Your task to perform on an android device: add a contact in the contacts app Image 0: 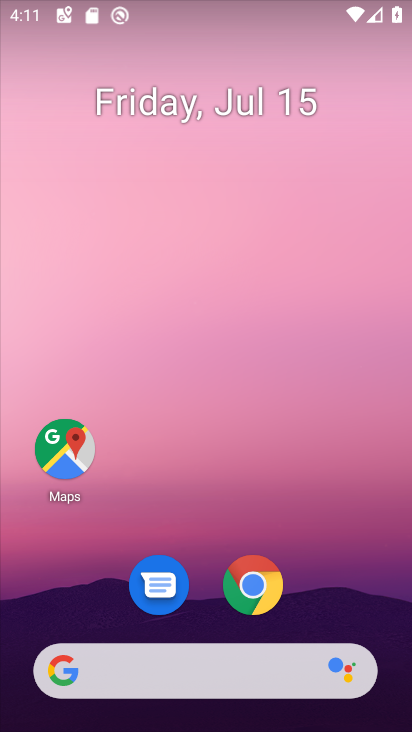
Step 0: drag from (319, 590) to (306, 28)
Your task to perform on an android device: add a contact in the contacts app Image 1: 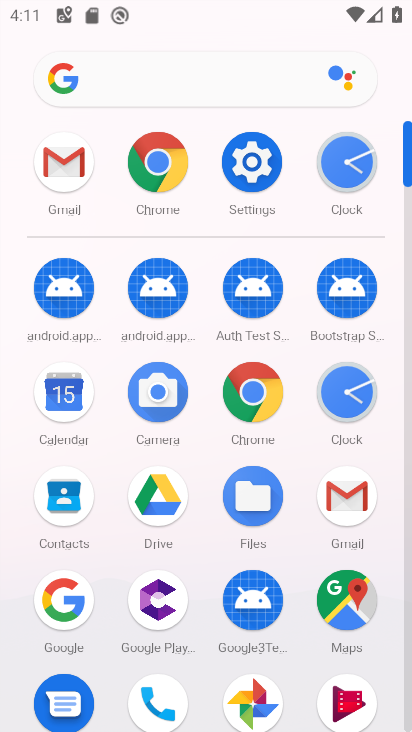
Step 1: click (71, 492)
Your task to perform on an android device: add a contact in the contacts app Image 2: 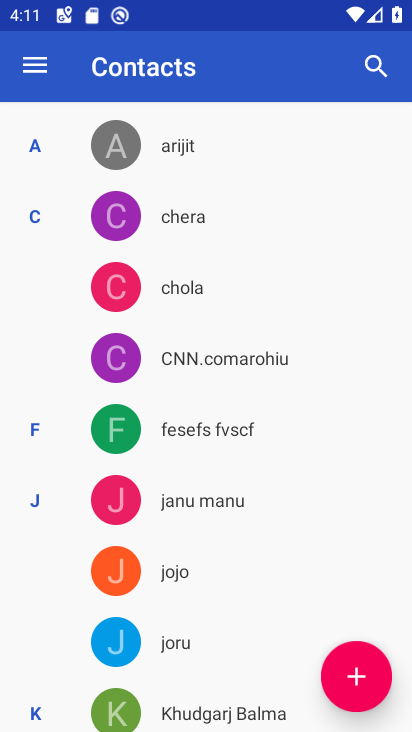
Step 2: click (358, 674)
Your task to perform on an android device: add a contact in the contacts app Image 3: 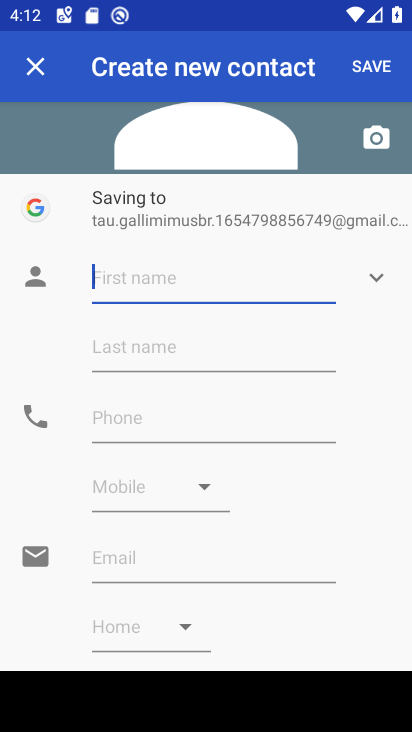
Step 3: type "Prayagraj"
Your task to perform on an android device: add a contact in the contacts app Image 4: 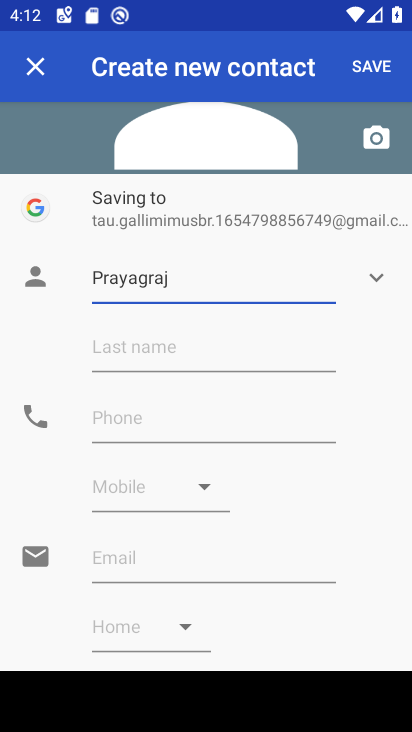
Step 4: click (251, 429)
Your task to perform on an android device: add a contact in the contacts app Image 5: 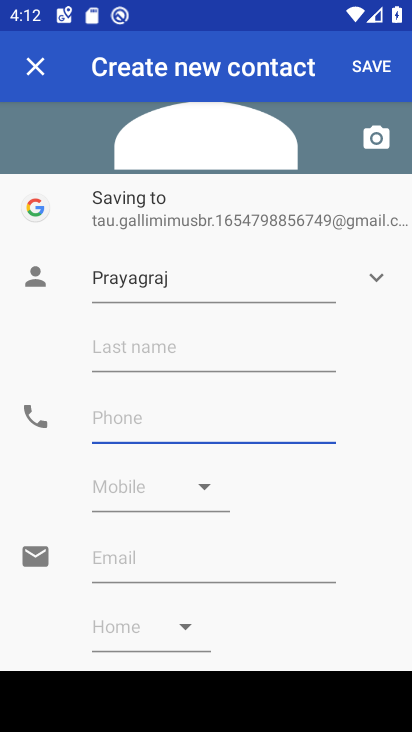
Step 5: type "919997755331"
Your task to perform on an android device: add a contact in the contacts app Image 6: 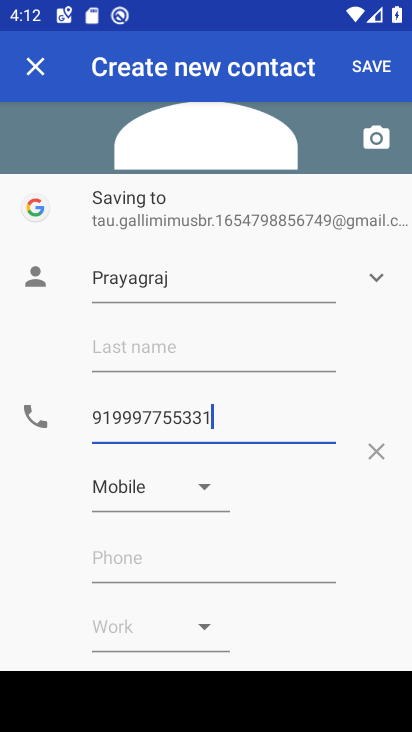
Step 6: click (381, 72)
Your task to perform on an android device: add a contact in the contacts app Image 7: 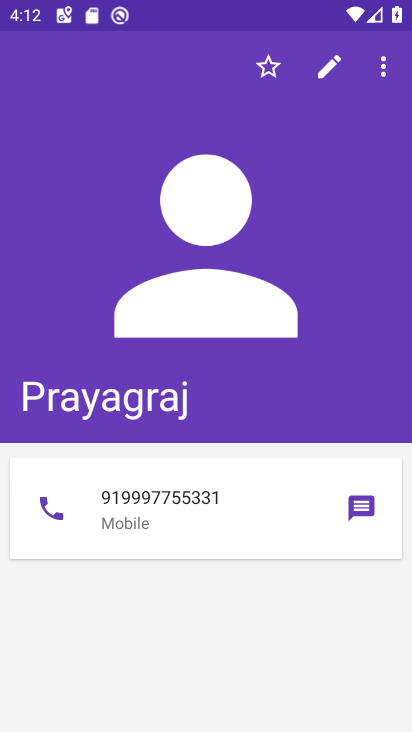
Step 7: task complete